Your task to perform on an android device: change keyboard looks Image 0: 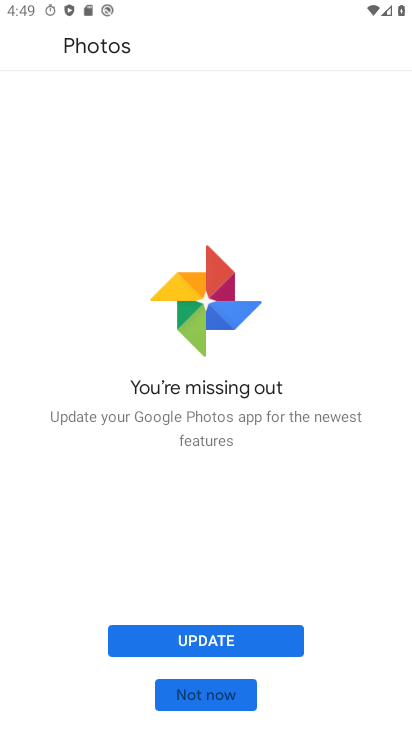
Step 0: click (215, 696)
Your task to perform on an android device: change keyboard looks Image 1: 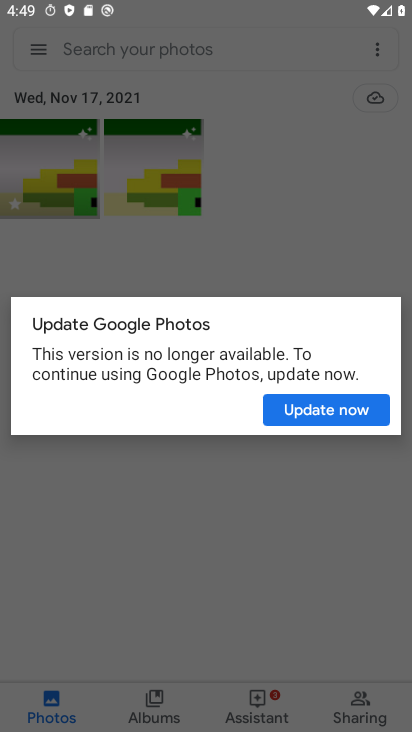
Step 1: press home button
Your task to perform on an android device: change keyboard looks Image 2: 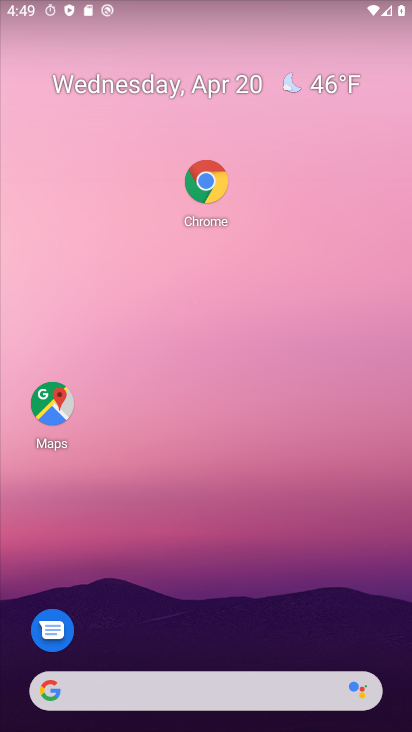
Step 2: drag from (213, 670) to (255, 189)
Your task to perform on an android device: change keyboard looks Image 3: 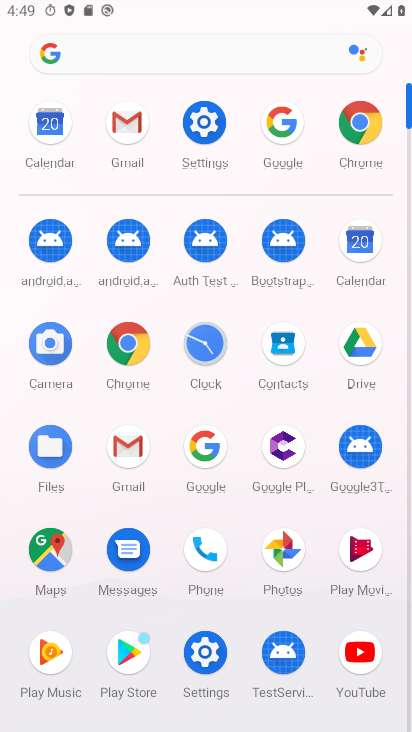
Step 3: click (205, 119)
Your task to perform on an android device: change keyboard looks Image 4: 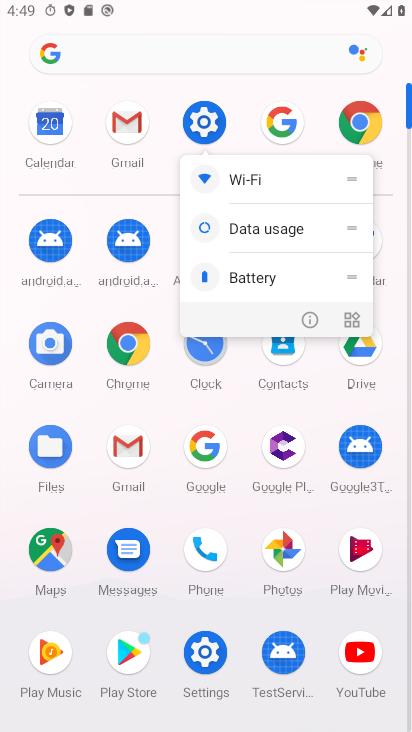
Step 4: click (206, 119)
Your task to perform on an android device: change keyboard looks Image 5: 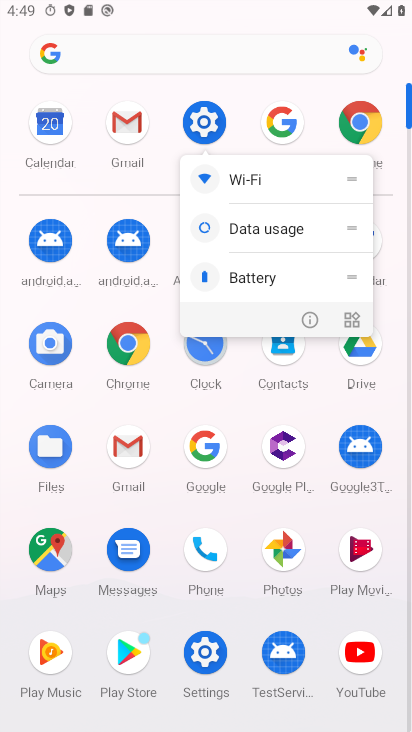
Step 5: click (205, 124)
Your task to perform on an android device: change keyboard looks Image 6: 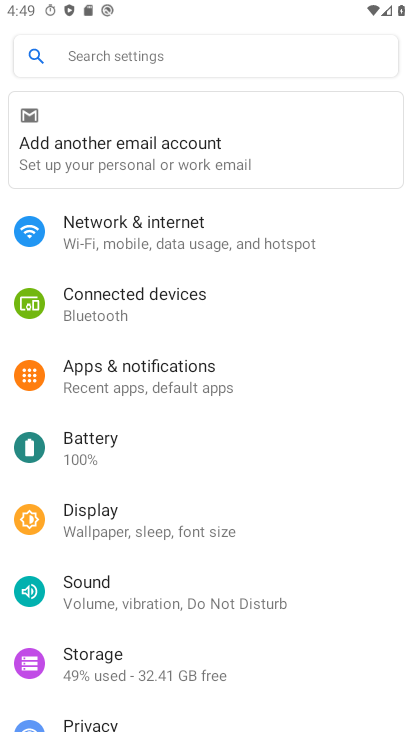
Step 6: drag from (165, 717) to (227, 356)
Your task to perform on an android device: change keyboard looks Image 7: 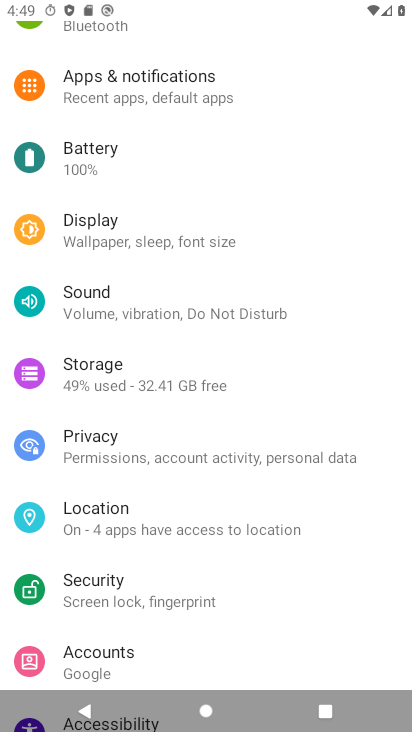
Step 7: drag from (152, 671) to (208, 356)
Your task to perform on an android device: change keyboard looks Image 8: 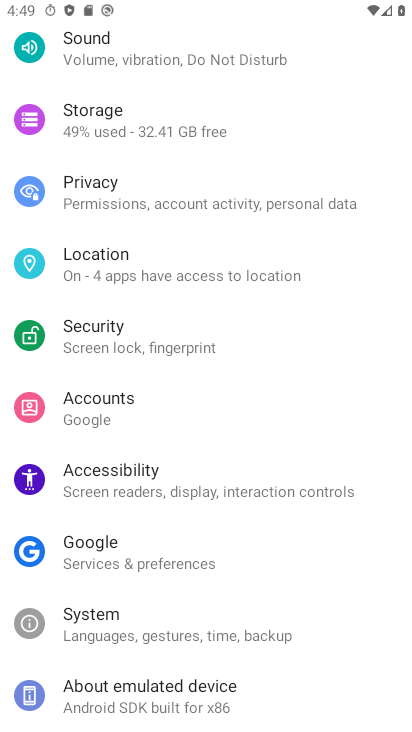
Step 8: click (64, 624)
Your task to perform on an android device: change keyboard looks Image 9: 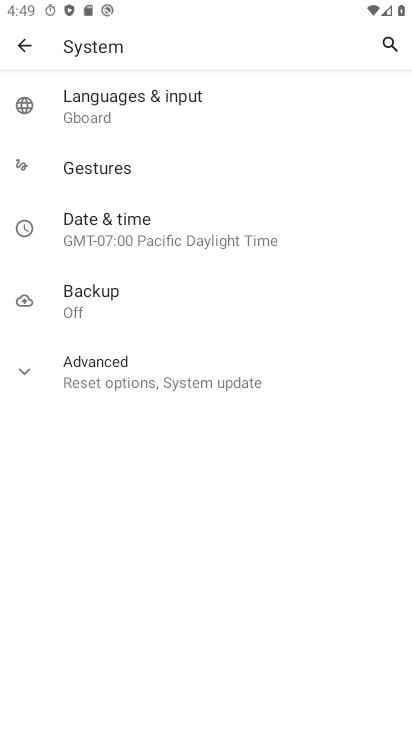
Step 9: click (105, 103)
Your task to perform on an android device: change keyboard looks Image 10: 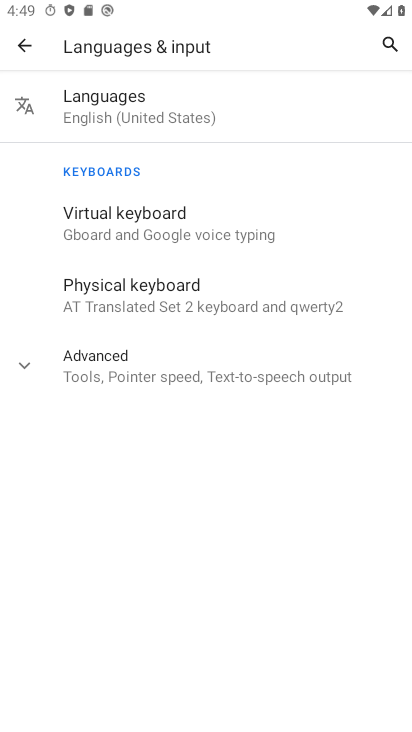
Step 10: click (124, 220)
Your task to perform on an android device: change keyboard looks Image 11: 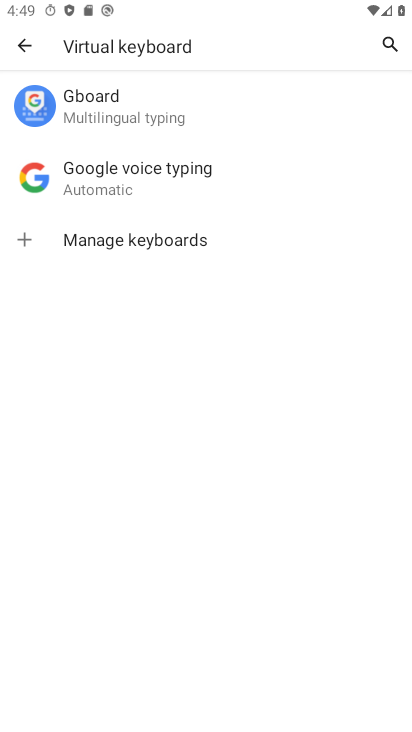
Step 11: click (93, 116)
Your task to perform on an android device: change keyboard looks Image 12: 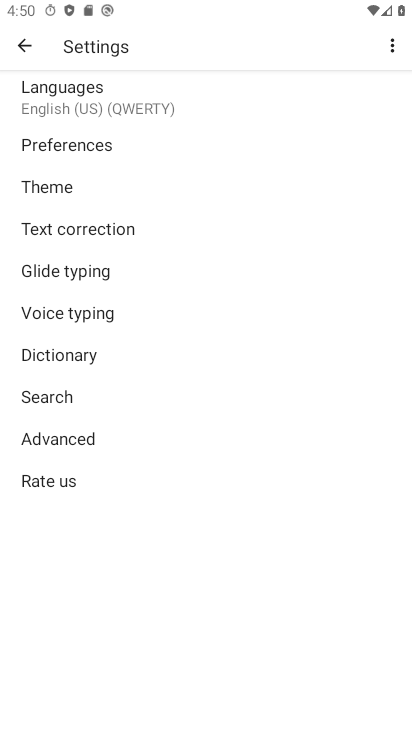
Step 12: click (37, 184)
Your task to perform on an android device: change keyboard looks Image 13: 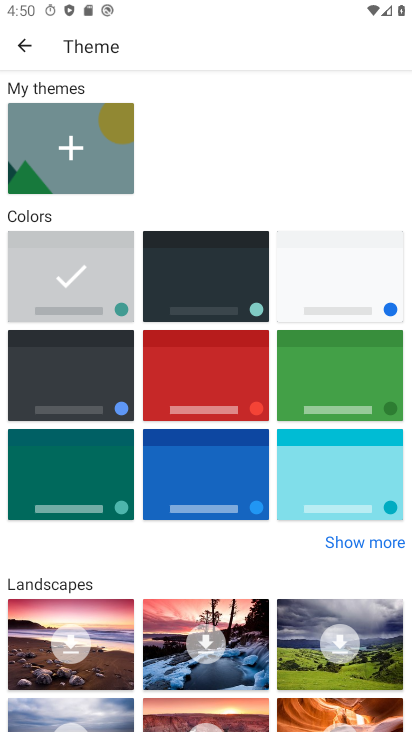
Step 13: click (194, 285)
Your task to perform on an android device: change keyboard looks Image 14: 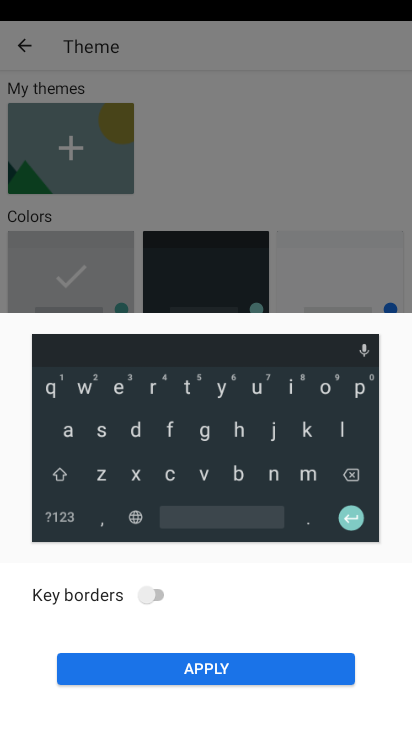
Step 14: click (202, 671)
Your task to perform on an android device: change keyboard looks Image 15: 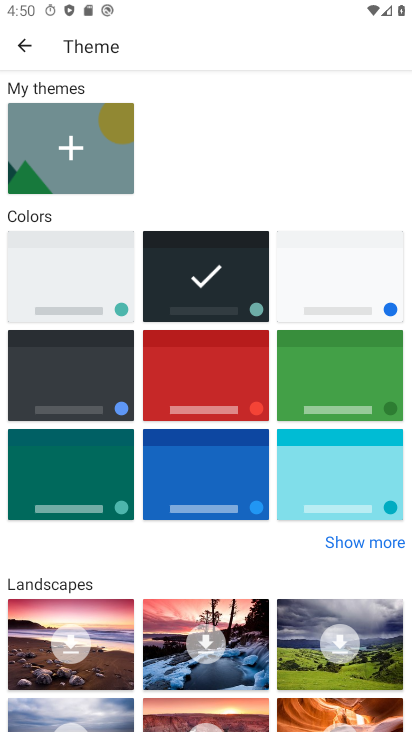
Step 15: task complete